Your task to perform on an android device: Search for vegetarian restaurants on Maps Image 0: 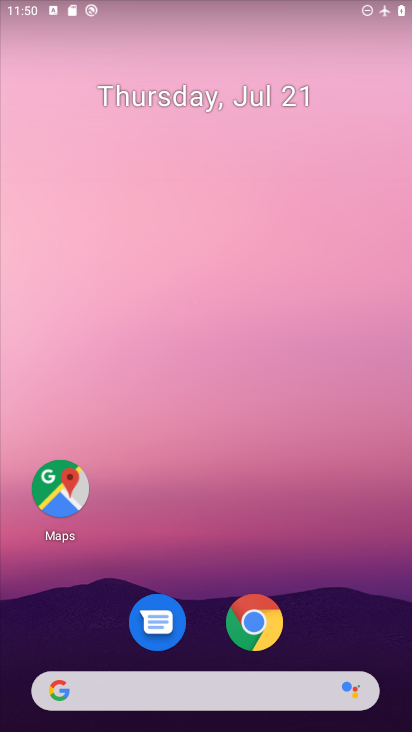
Step 0: click (46, 503)
Your task to perform on an android device: Search for vegetarian restaurants on Maps Image 1: 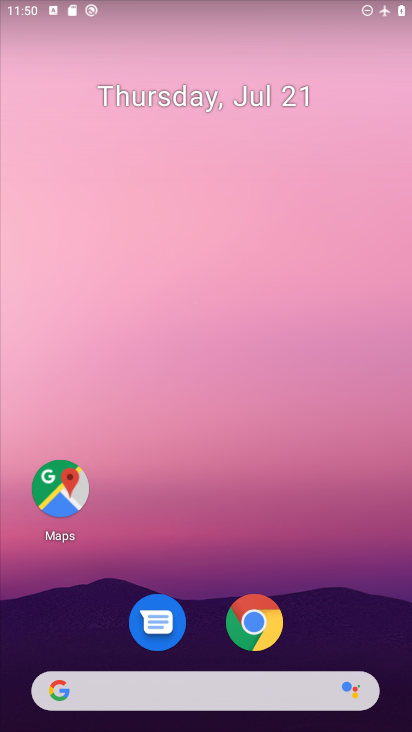
Step 1: click (46, 503)
Your task to perform on an android device: Search for vegetarian restaurants on Maps Image 2: 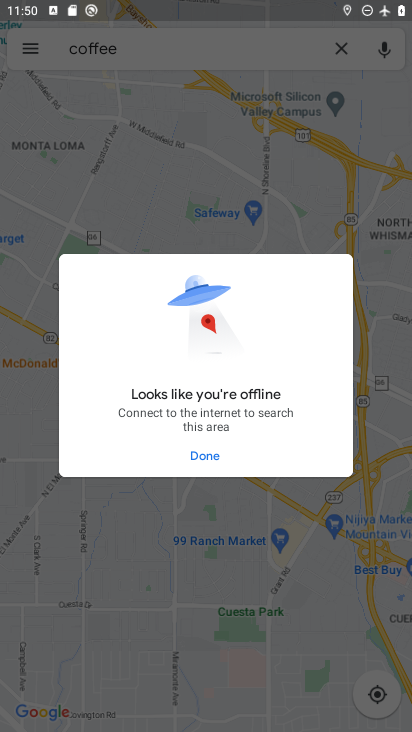
Step 2: drag from (317, 35) to (328, 540)
Your task to perform on an android device: Search for vegetarian restaurants on Maps Image 3: 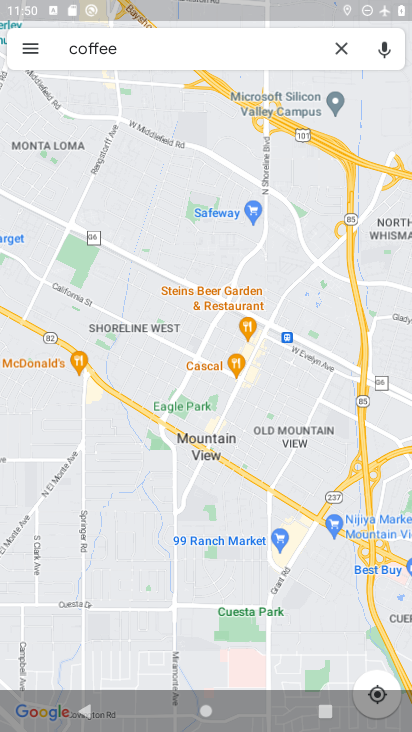
Step 3: drag from (368, 7) to (323, 603)
Your task to perform on an android device: Search for vegetarian restaurants on Maps Image 4: 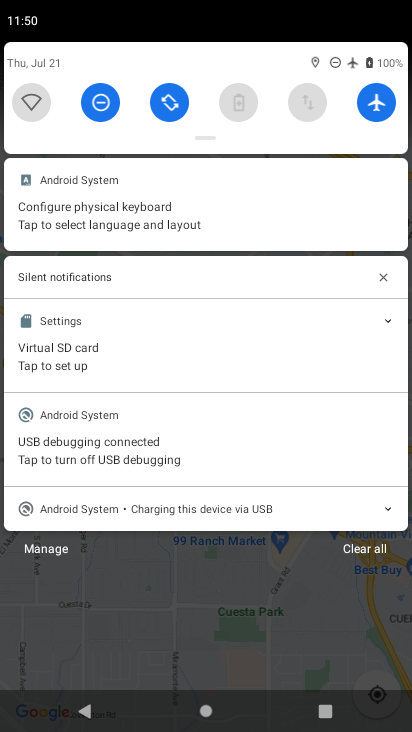
Step 4: click (375, 107)
Your task to perform on an android device: Search for vegetarian restaurants on Maps Image 5: 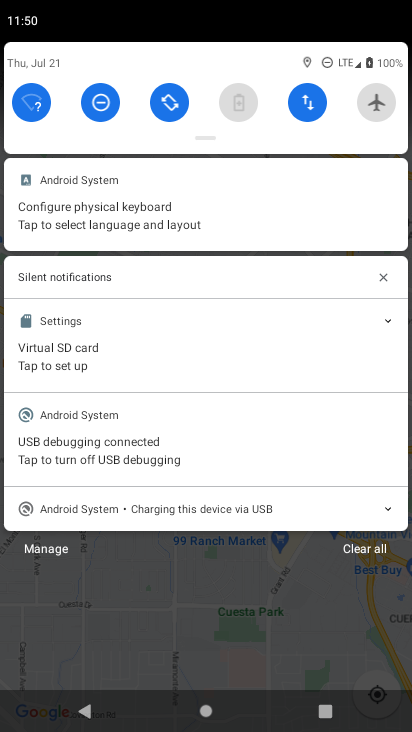
Step 5: task complete